Your task to perform on an android device: Search for seafood restaurants on Google Maps Image 0: 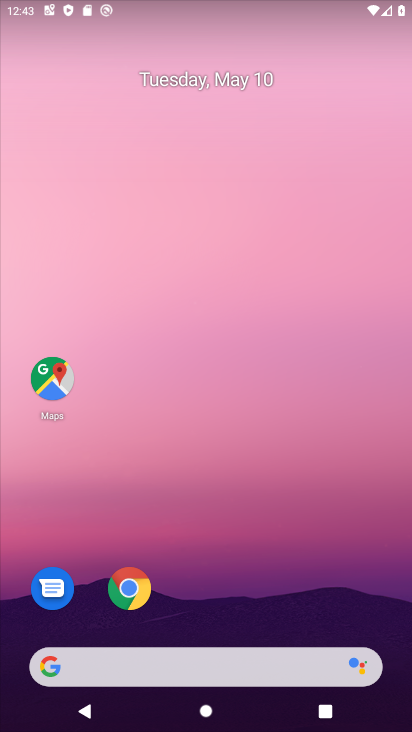
Step 0: click (63, 370)
Your task to perform on an android device: Search for seafood restaurants on Google Maps Image 1: 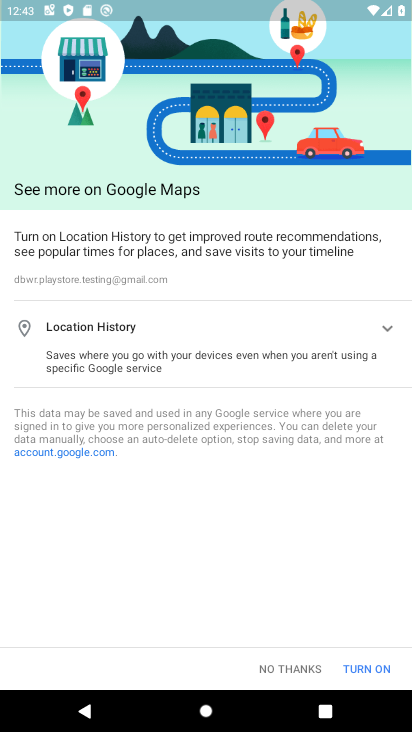
Step 1: click (305, 670)
Your task to perform on an android device: Search for seafood restaurants on Google Maps Image 2: 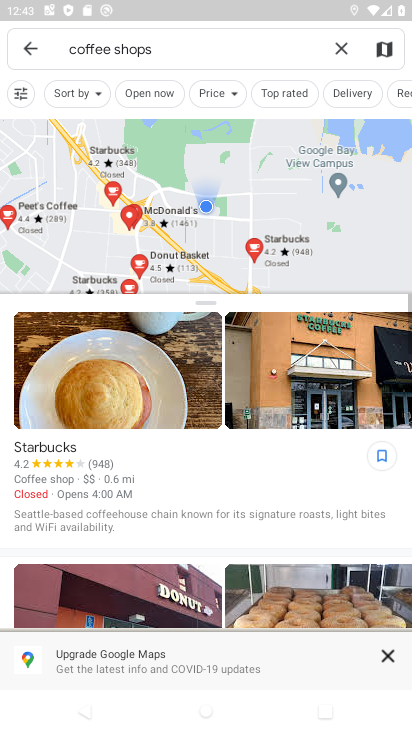
Step 2: click (342, 46)
Your task to perform on an android device: Search for seafood restaurants on Google Maps Image 3: 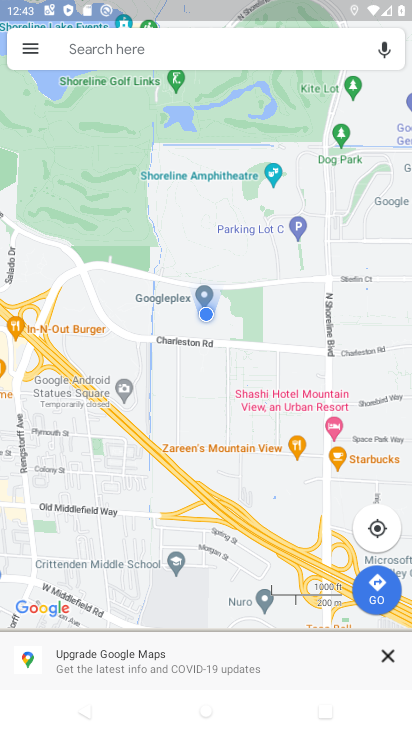
Step 3: click (248, 52)
Your task to perform on an android device: Search for seafood restaurants on Google Maps Image 4: 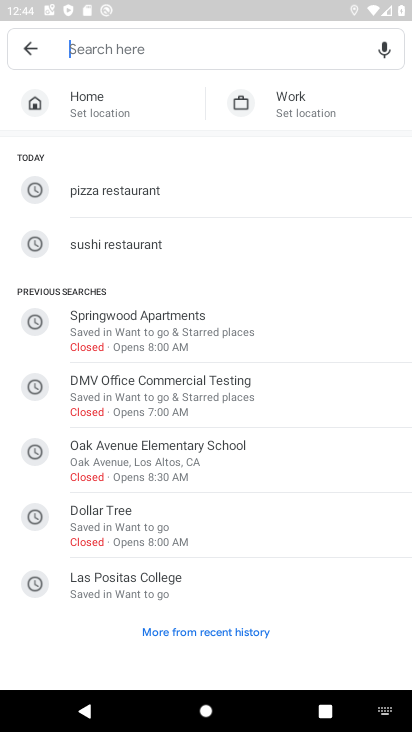
Step 4: type "seafood restaurants"
Your task to perform on an android device: Search for seafood restaurants on Google Maps Image 5: 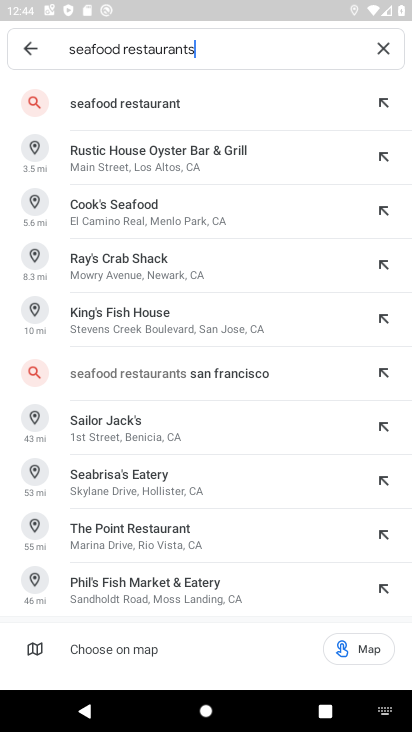
Step 5: click (214, 100)
Your task to perform on an android device: Search for seafood restaurants on Google Maps Image 6: 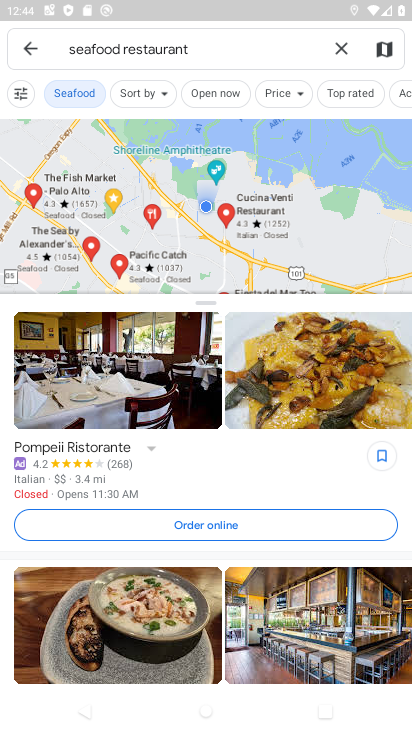
Step 6: task complete